Your task to perform on an android device: change the clock display to show seconds Image 0: 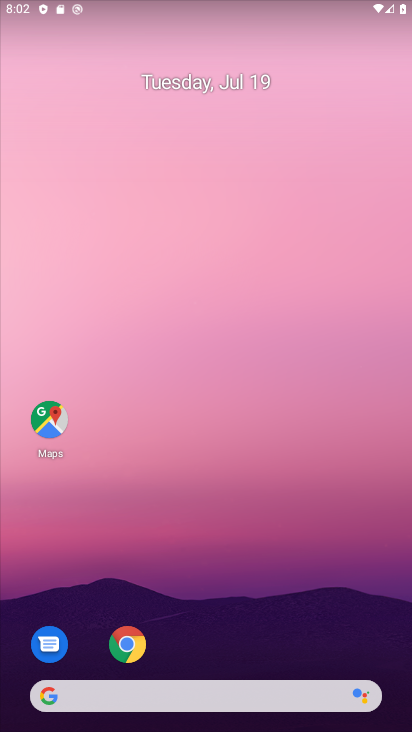
Step 0: drag from (300, 651) to (290, 11)
Your task to perform on an android device: change the clock display to show seconds Image 1: 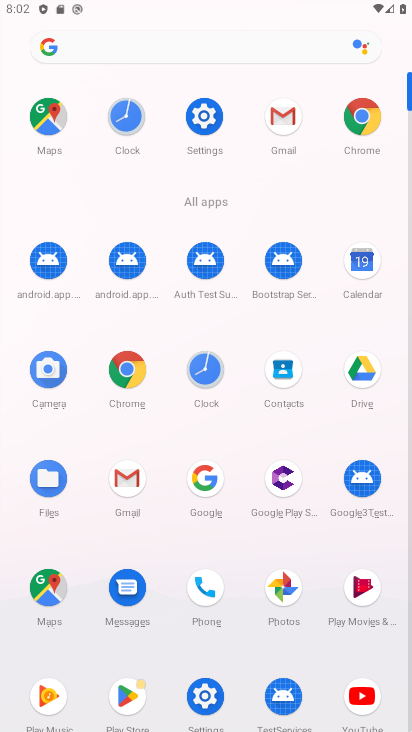
Step 1: click (201, 376)
Your task to perform on an android device: change the clock display to show seconds Image 2: 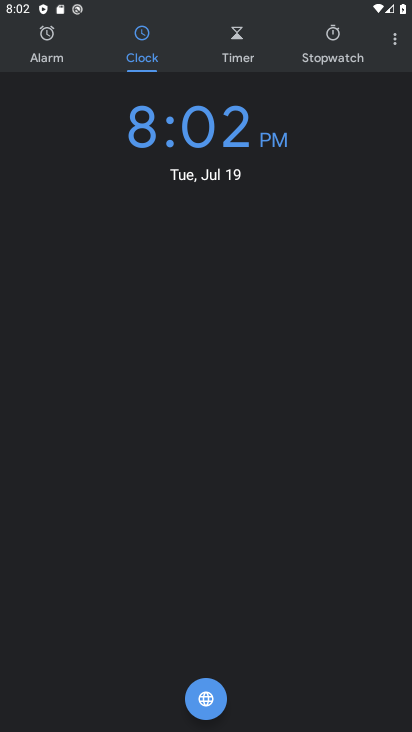
Step 2: click (394, 30)
Your task to perform on an android device: change the clock display to show seconds Image 3: 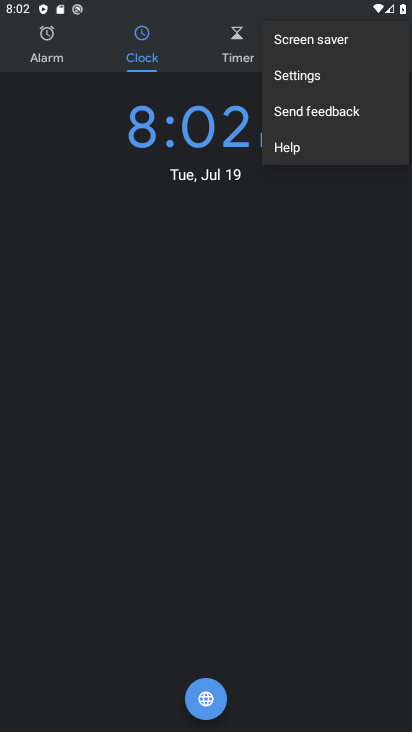
Step 3: click (328, 77)
Your task to perform on an android device: change the clock display to show seconds Image 4: 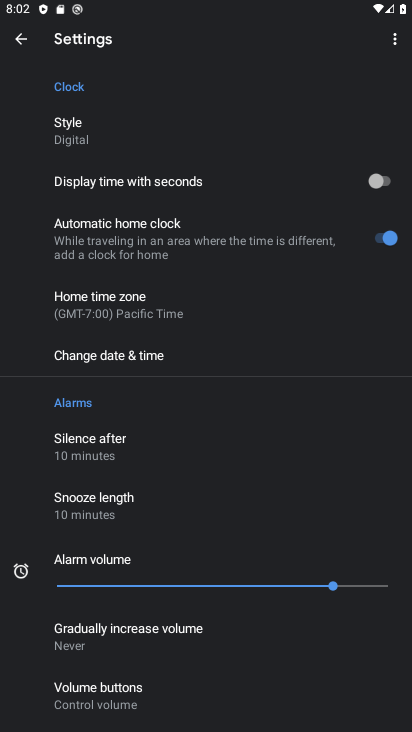
Step 4: click (375, 179)
Your task to perform on an android device: change the clock display to show seconds Image 5: 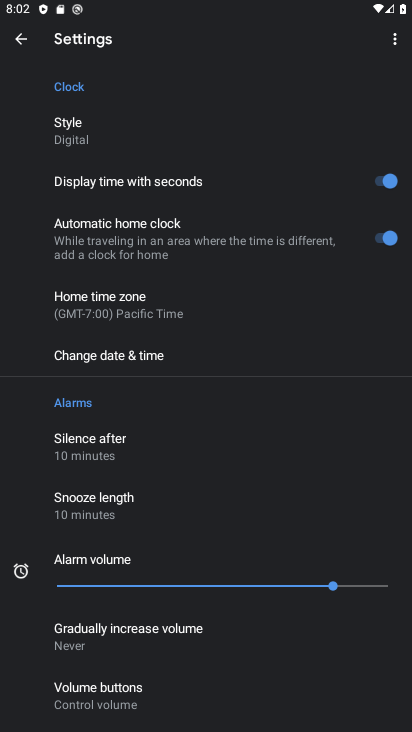
Step 5: task complete